Your task to perform on an android device: Is it going to rain tomorrow? Image 0: 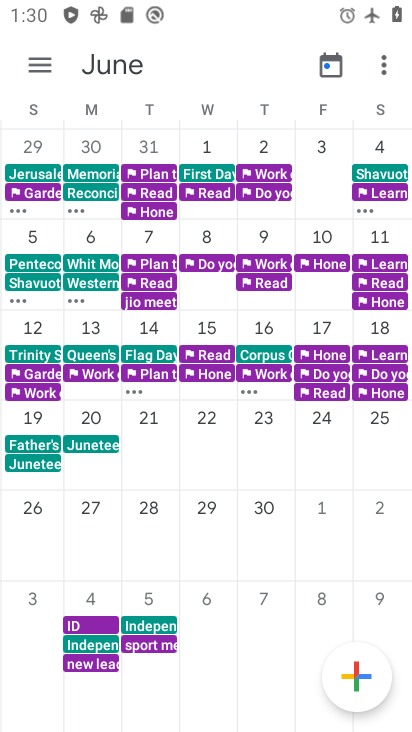
Step 0: press home button
Your task to perform on an android device: Is it going to rain tomorrow? Image 1: 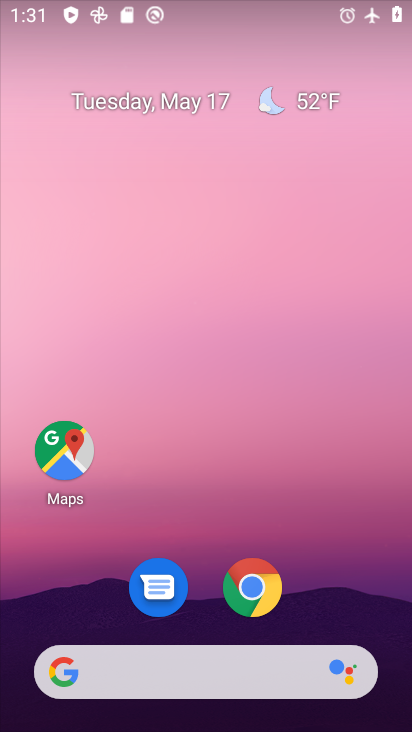
Step 1: click (233, 656)
Your task to perform on an android device: Is it going to rain tomorrow? Image 2: 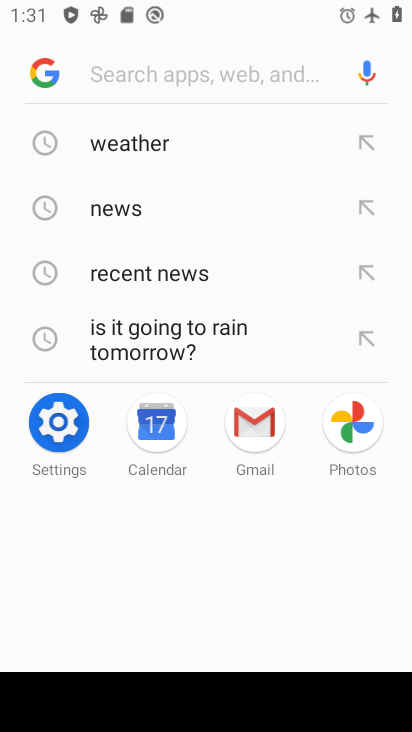
Step 2: click (208, 145)
Your task to perform on an android device: Is it going to rain tomorrow? Image 3: 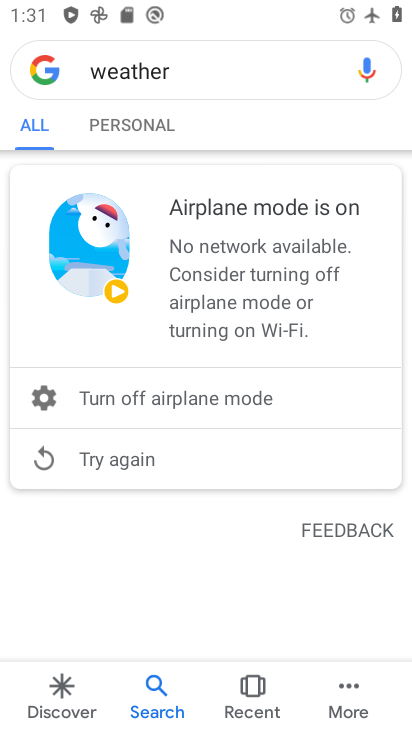
Step 3: task complete